Your task to perform on an android device: set the stopwatch Image 0: 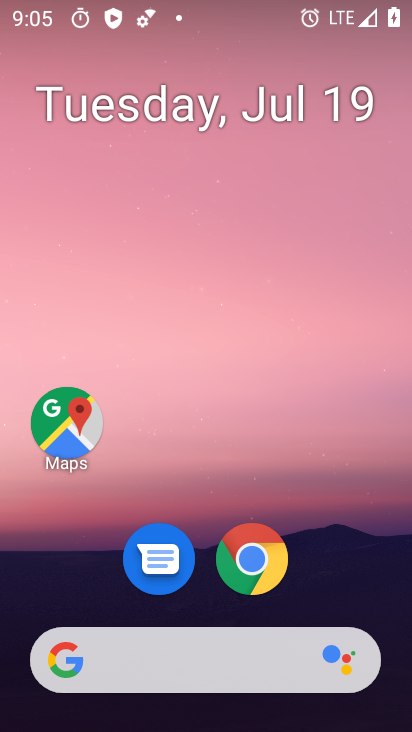
Step 0: drag from (373, 563) to (321, 62)
Your task to perform on an android device: set the stopwatch Image 1: 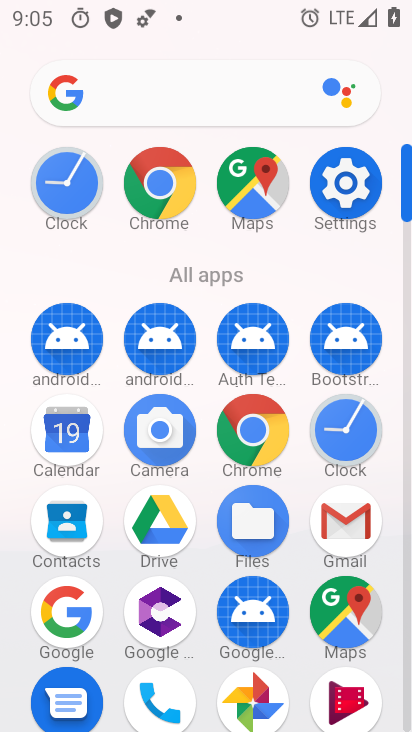
Step 1: click (70, 194)
Your task to perform on an android device: set the stopwatch Image 2: 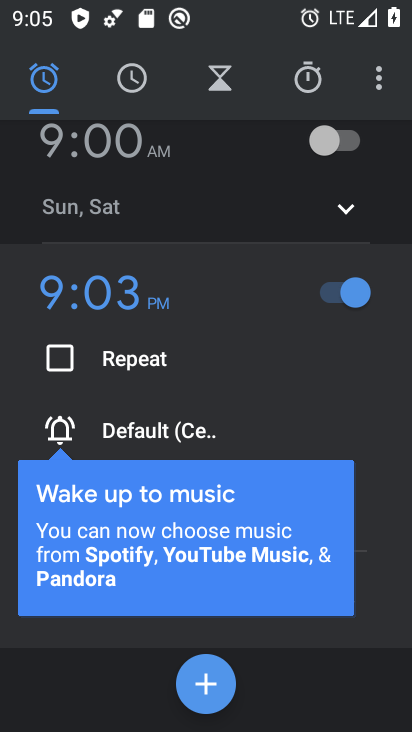
Step 2: click (318, 78)
Your task to perform on an android device: set the stopwatch Image 3: 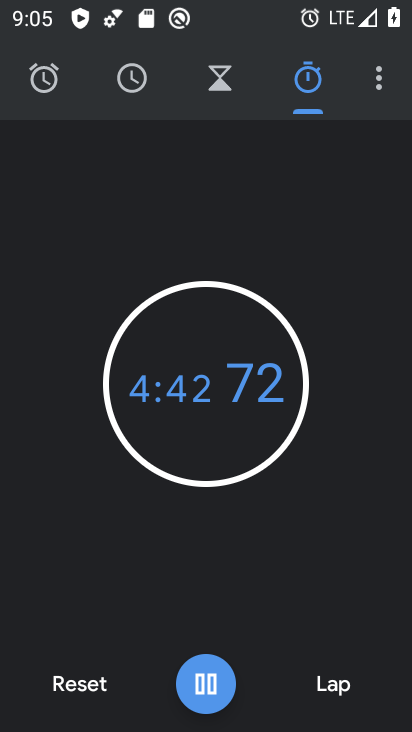
Step 3: task complete